Your task to perform on an android device: turn off location Image 0: 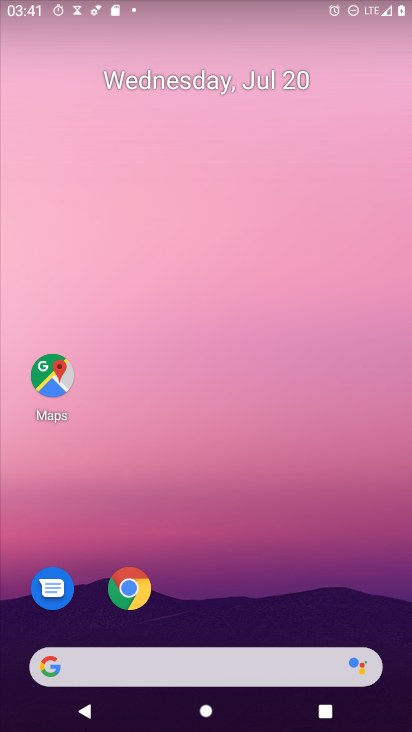
Step 0: drag from (339, 624) to (357, 157)
Your task to perform on an android device: turn off location Image 1: 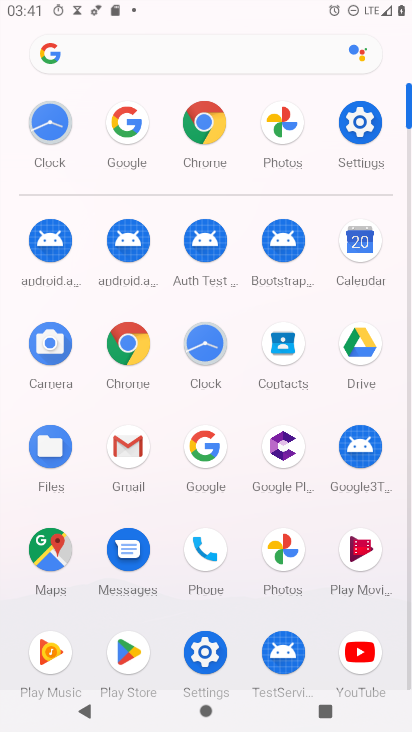
Step 1: click (357, 157)
Your task to perform on an android device: turn off location Image 2: 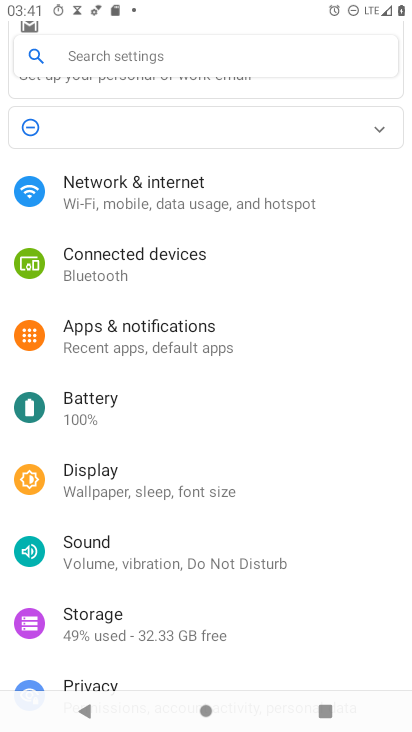
Step 2: drag from (32, 602) to (29, 321)
Your task to perform on an android device: turn off location Image 3: 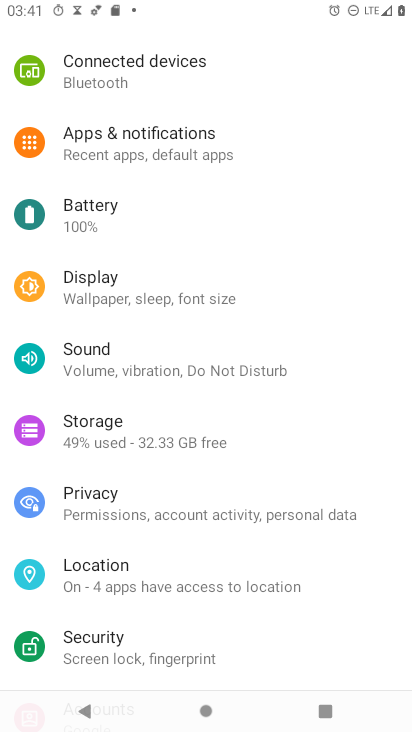
Step 3: click (65, 566)
Your task to perform on an android device: turn off location Image 4: 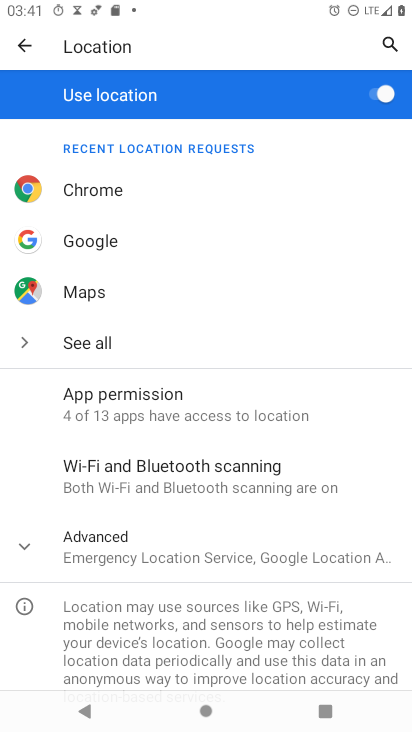
Step 4: click (365, 94)
Your task to perform on an android device: turn off location Image 5: 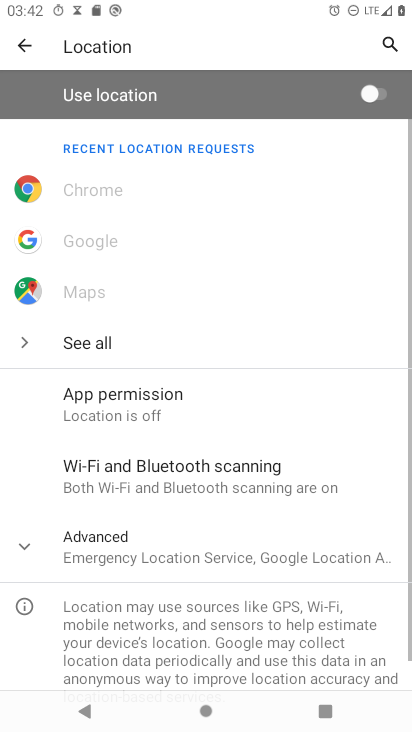
Step 5: task complete